Your task to perform on an android device: set the stopwatch Image 0: 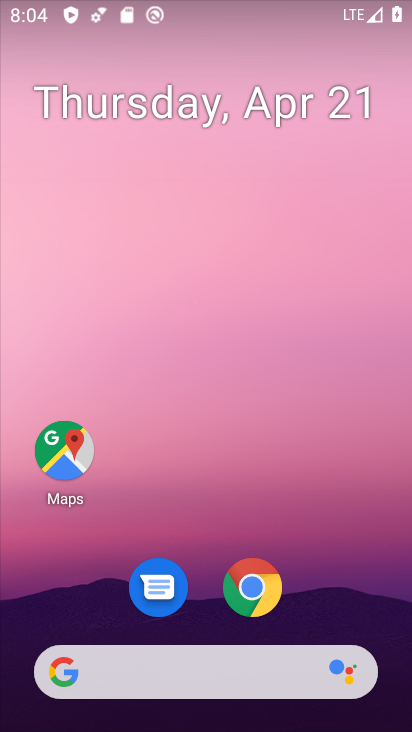
Step 0: drag from (384, 524) to (396, 215)
Your task to perform on an android device: set the stopwatch Image 1: 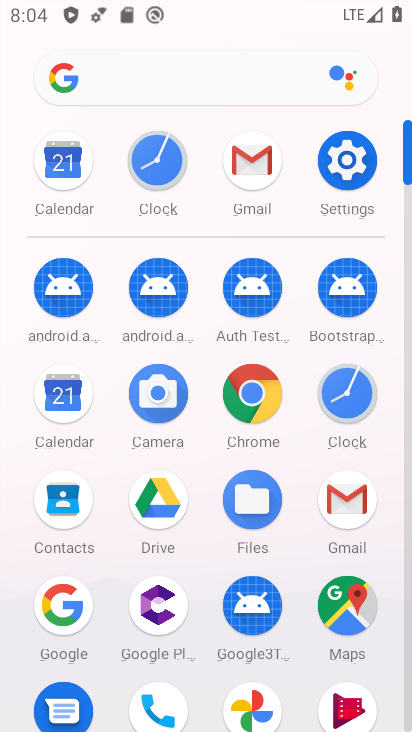
Step 1: click (348, 400)
Your task to perform on an android device: set the stopwatch Image 2: 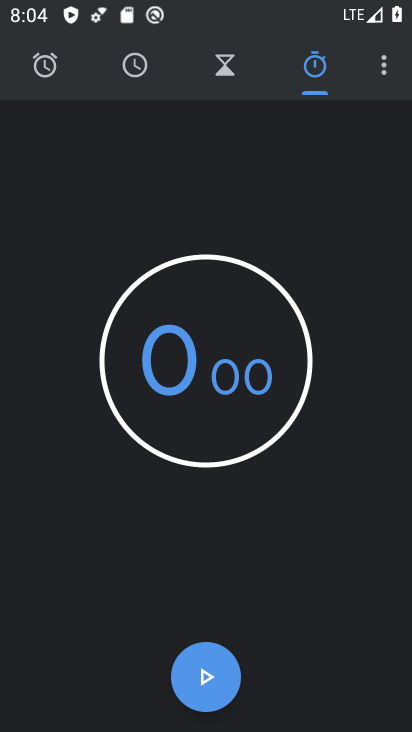
Step 2: click (204, 680)
Your task to perform on an android device: set the stopwatch Image 3: 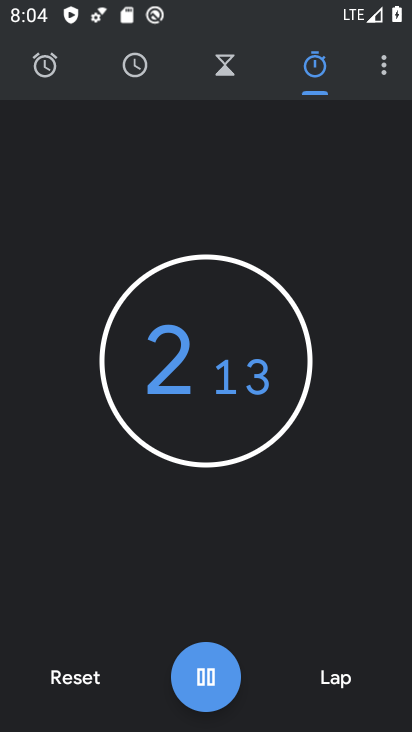
Step 3: task complete